Your task to perform on an android device: allow cookies in the chrome app Image 0: 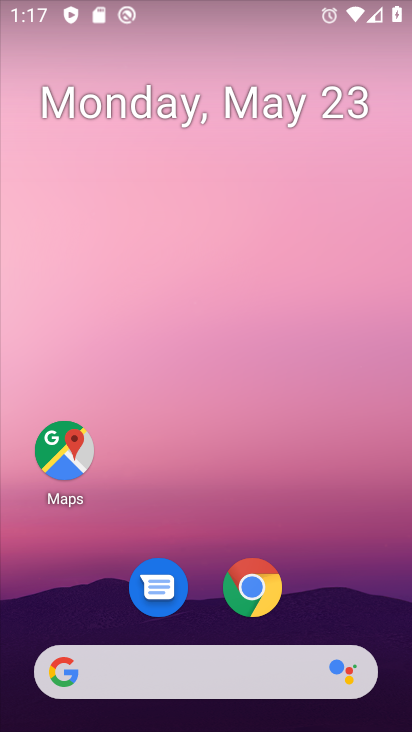
Step 0: click (260, 577)
Your task to perform on an android device: allow cookies in the chrome app Image 1: 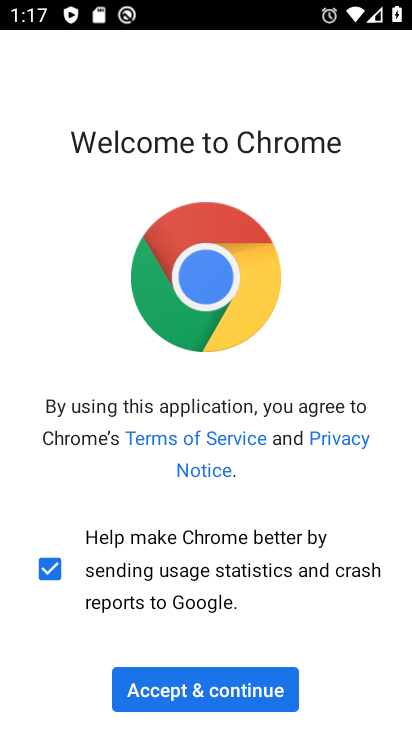
Step 1: click (199, 673)
Your task to perform on an android device: allow cookies in the chrome app Image 2: 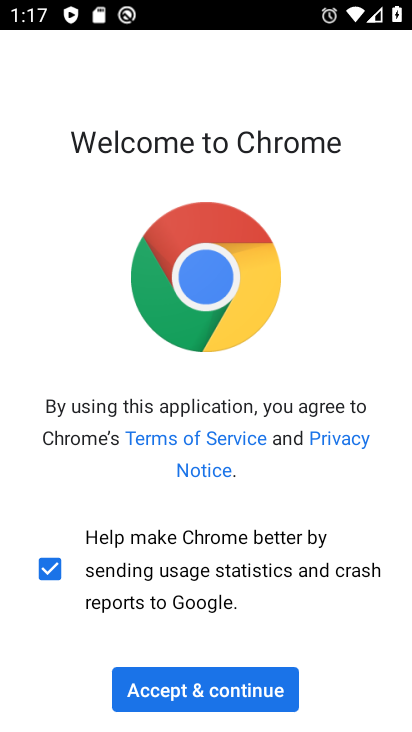
Step 2: click (199, 673)
Your task to perform on an android device: allow cookies in the chrome app Image 3: 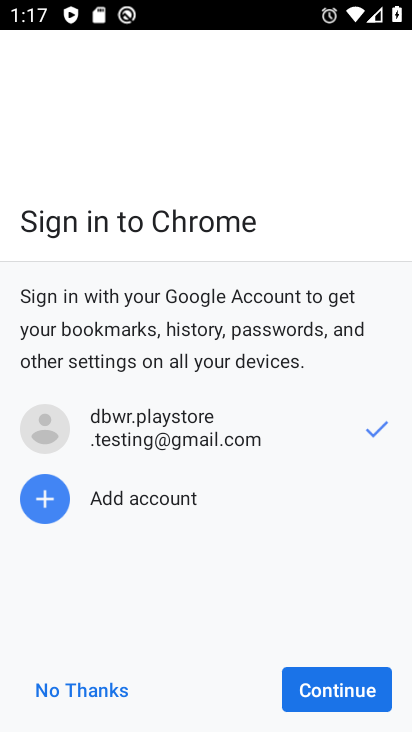
Step 3: click (199, 673)
Your task to perform on an android device: allow cookies in the chrome app Image 4: 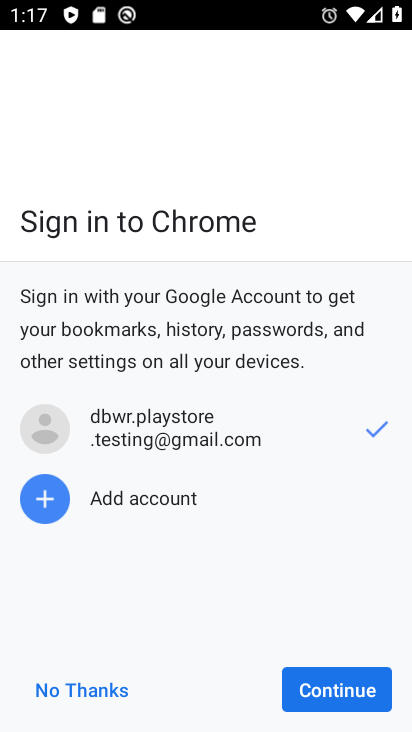
Step 4: click (328, 701)
Your task to perform on an android device: allow cookies in the chrome app Image 5: 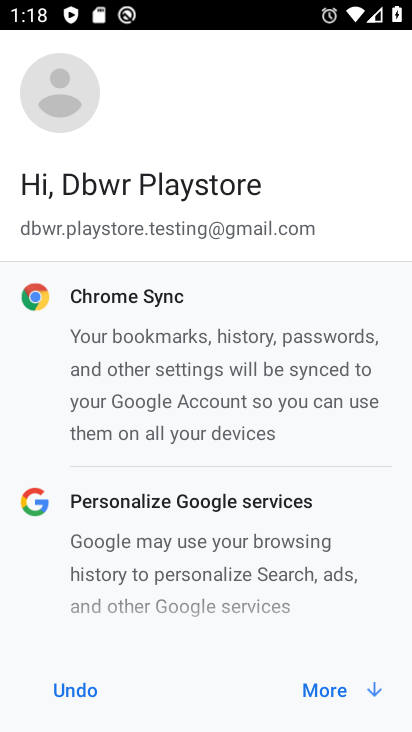
Step 5: click (328, 701)
Your task to perform on an android device: allow cookies in the chrome app Image 6: 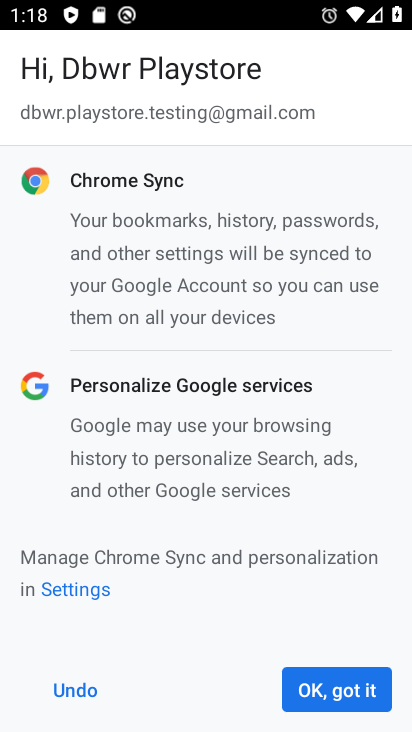
Step 6: click (328, 701)
Your task to perform on an android device: allow cookies in the chrome app Image 7: 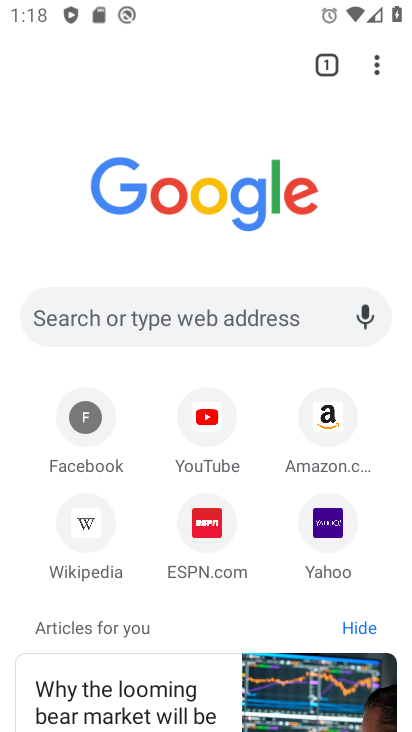
Step 7: task complete